Your task to perform on an android device: Open Yahoo.com Image 0: 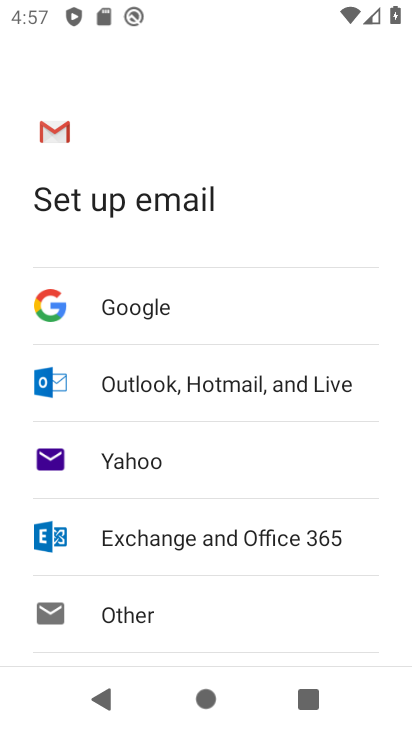
Step 0: press home button
Your task to perform on an android device: Open Yahoo.com Image 1: 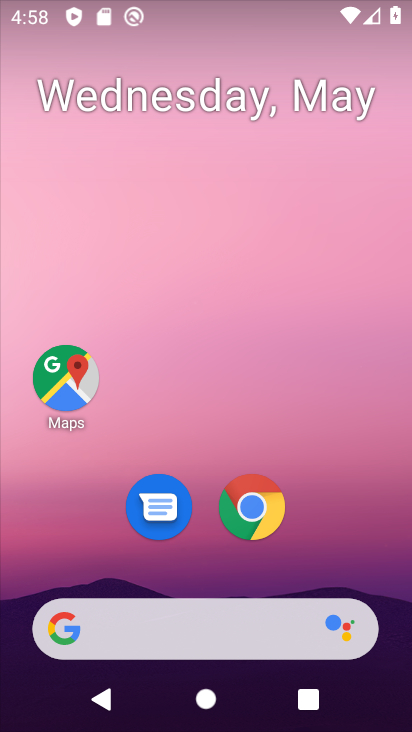
Step 1: click (254, 506)
Your task to perform on an android device: Open Yahoo.com Image 2: 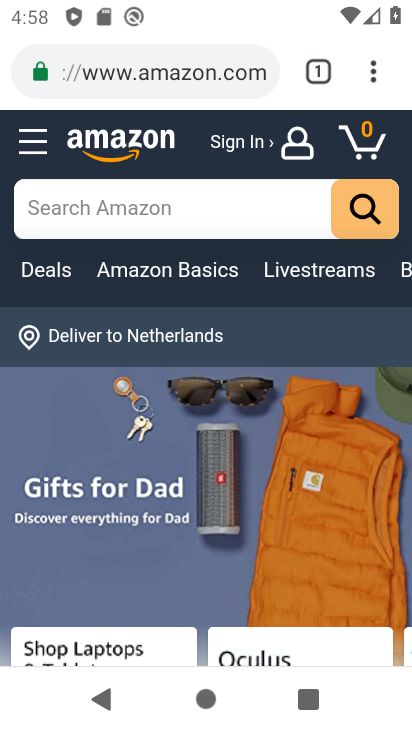
Step 2: click (250, 77)
Your task to perform on an android device: Open Yahoo.com Image 3: 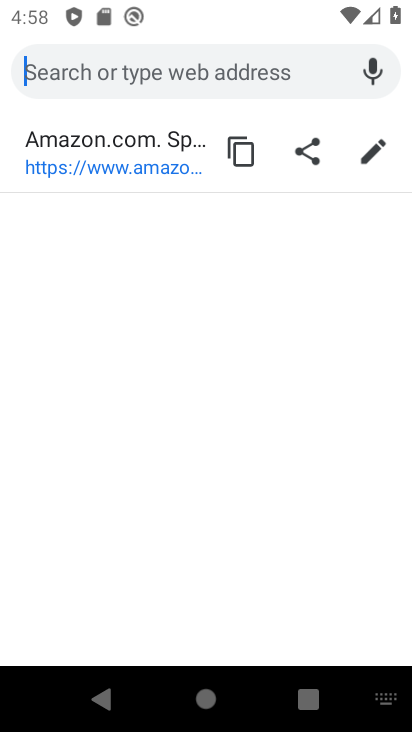
Step 3: type "Yahoo.com"
Your task to perform on an android device: Open Yahoo.com Image 4: 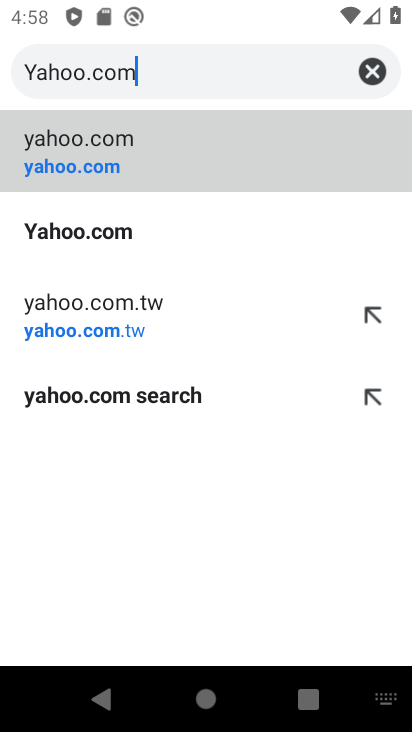
Step 4: click (106, 231)
Your task to perform on an android device: Open Yahoo.com Image 5: 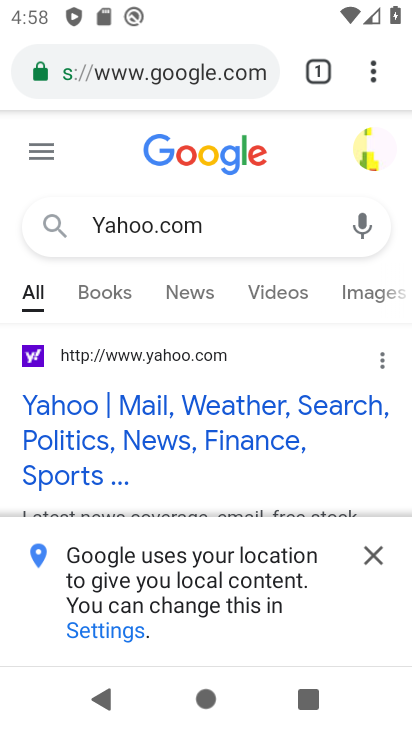
Step 5: click (221, 412)
Your task to perform on an android device: Open Yahoo.com Image 6: 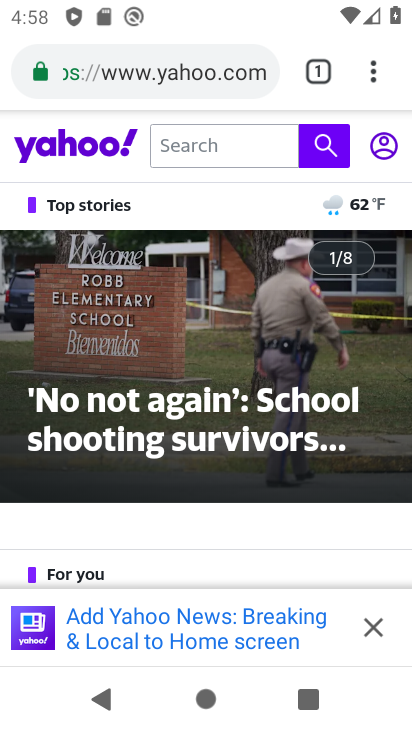
Step 6: task complete